Your task to perform on an android device: turn on priority inbox in the gmail app Image 0: 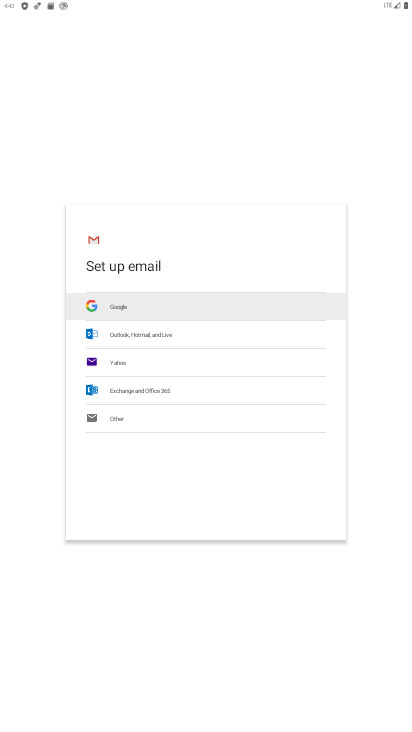
Step 0: press home button
Your task to perform on an android device: turn on priority inbox in the gmail app Image 1: 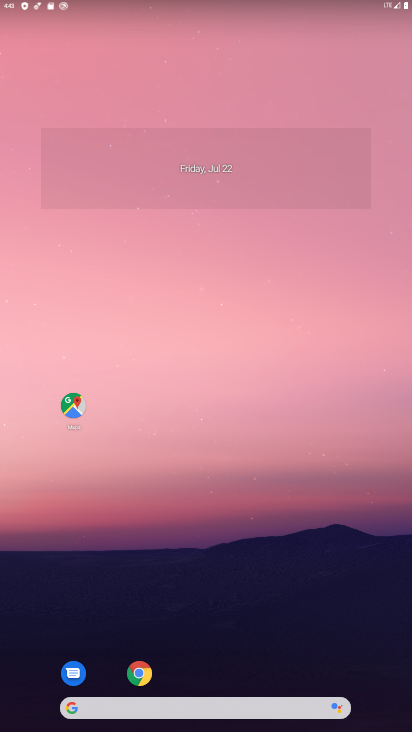
Step 1: drag from (250, 639) to (295, 169)
Your task to perform on an android device: turn on priority inbox in the gmail app Image 2: 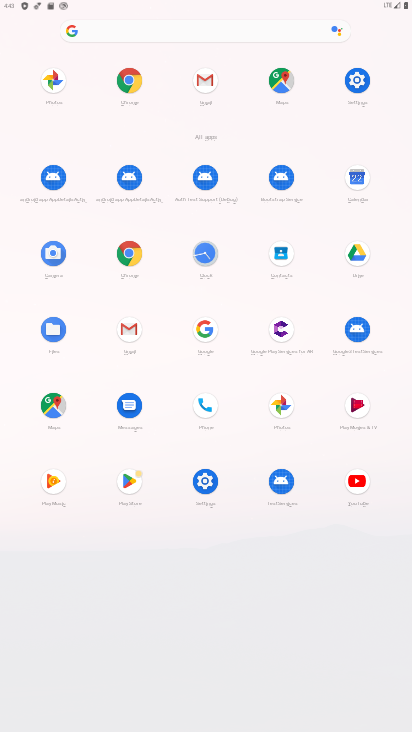
Step 2: click (210, 77)
Your task to perform on an android device: turn on priority inbox in the gmail app Image 3: 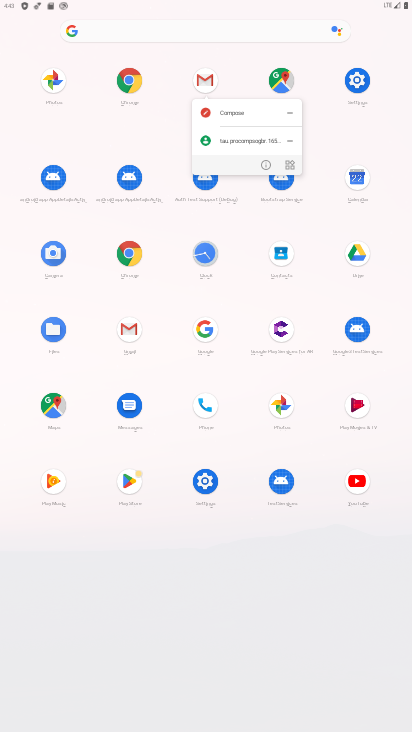
Step 3: click (206, 76)
Your task to perform on an android device: turn on priority inbox in the gmail app Image 4: 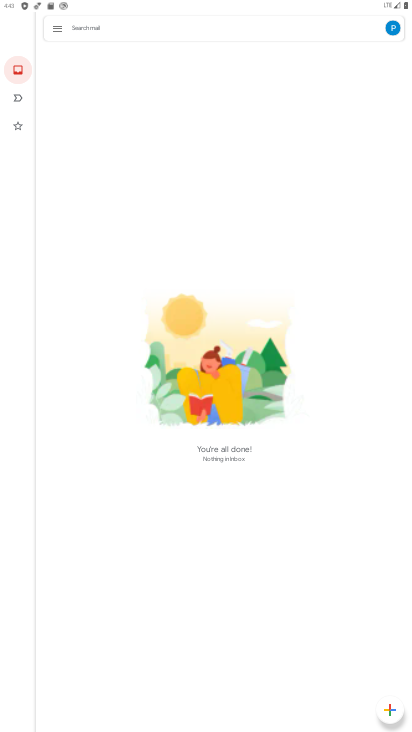
Step 4: click (55, 23)
Your task to perform on an android device: turn on priority inbox in the gmail app Image 5: 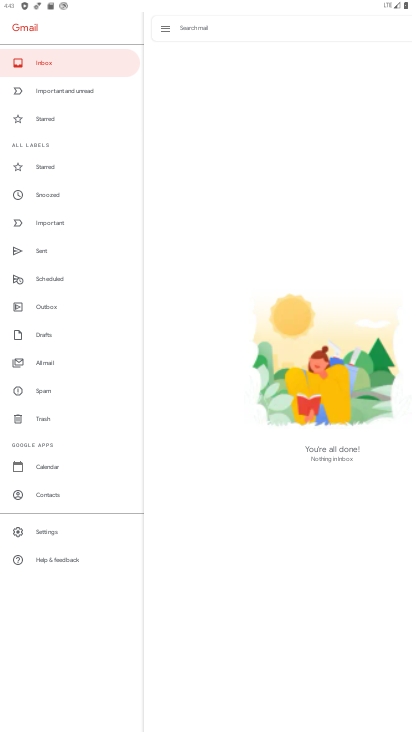
Step 5: click (49, 525)
Your task to perform on an android device: turn on priority inbox in the gmail app Image 6: 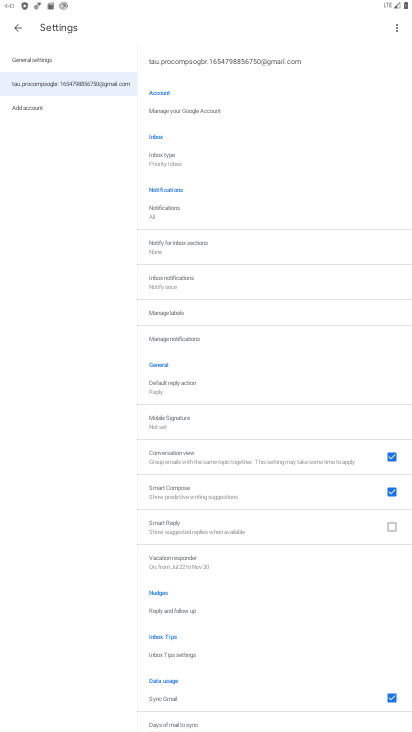
Step 6: click (166, 146)
Your task to perform on an android device: turn on priority inbox in the gmail app Image 7: 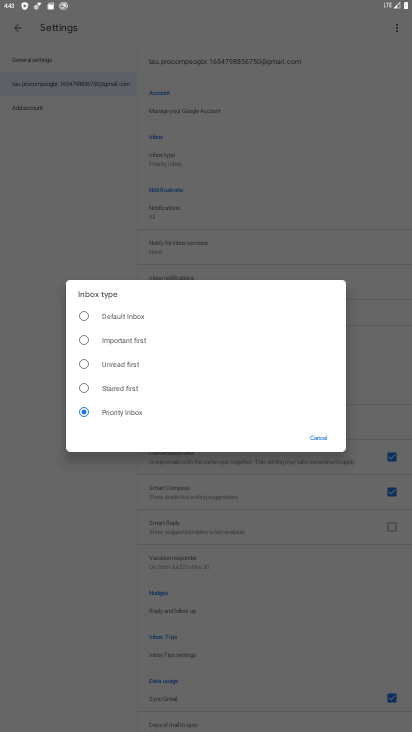
Step 7: task complete